Your task to perform on an android device: Go to accessibility settings Image 0: 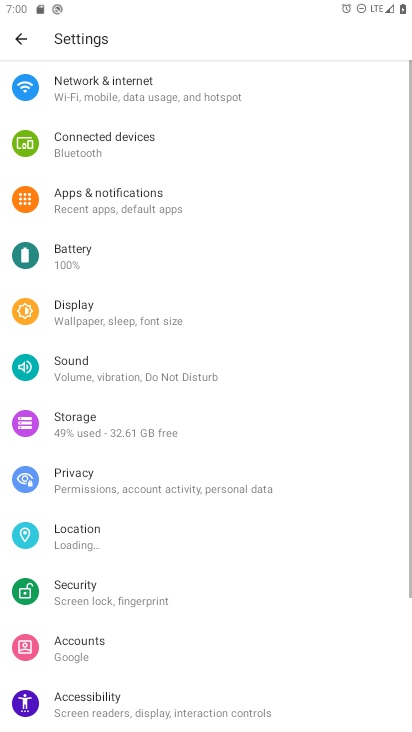
Step 0: press home button
Your task to perform on an android device: Go to accessibility settings Image 1: 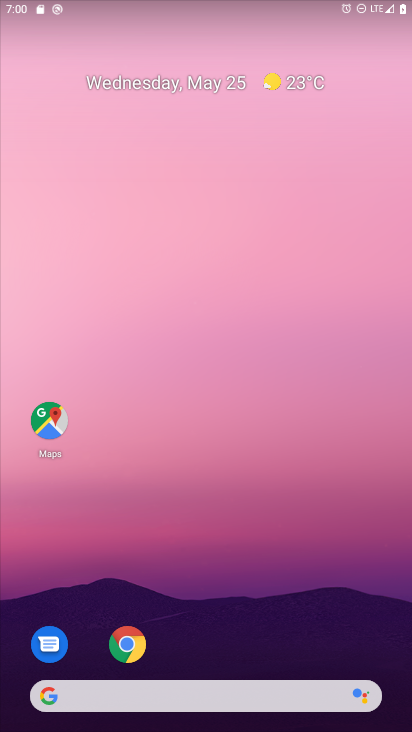
Step 1: drag from (358, 628) to (300, 24)
Your task to perform on an android device: Go to accessibility settings Image 2: 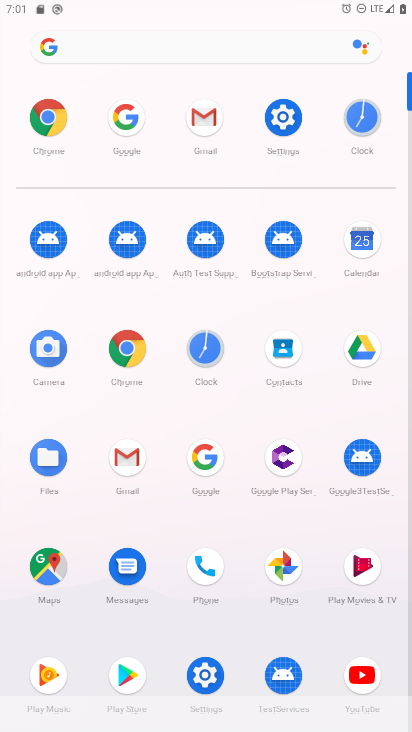
Step 2: click (212, 672)
Your task to perform on an android device: Go to accessibility settings Image 3: 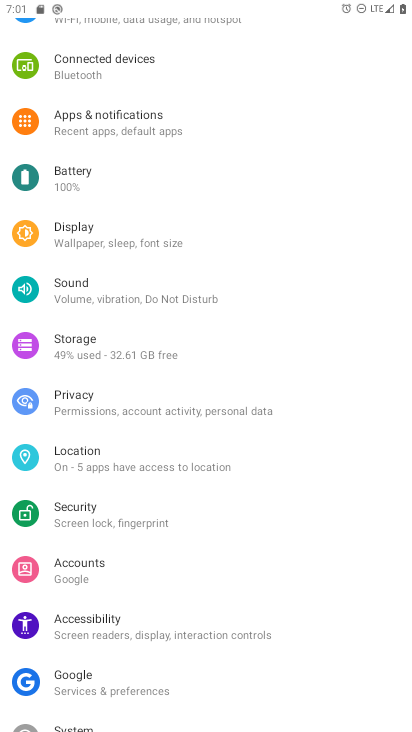
Step 3: click (108, 634)
Your task to perform on an android device: Go to accessibility settings Image 4: 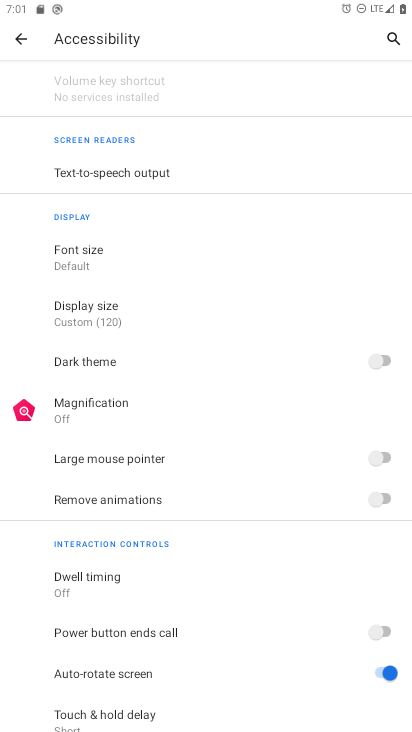
Step 4: task complete